Your task to perform on an android device: clear history in the chrome app Image 0: 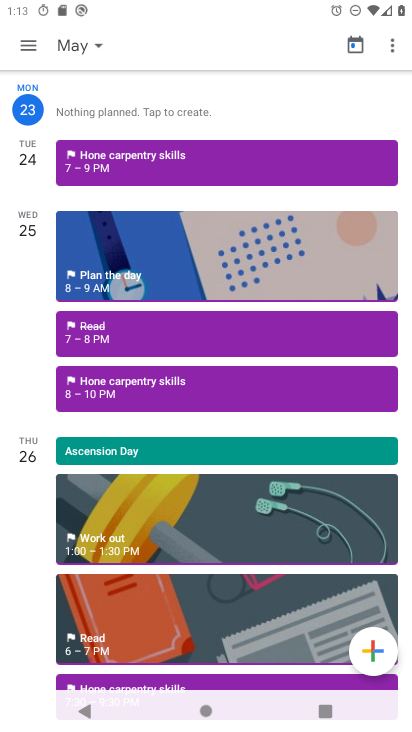
Step 0: press home button
Your task to perform on an android device: clear history in the chrome app Image 1: 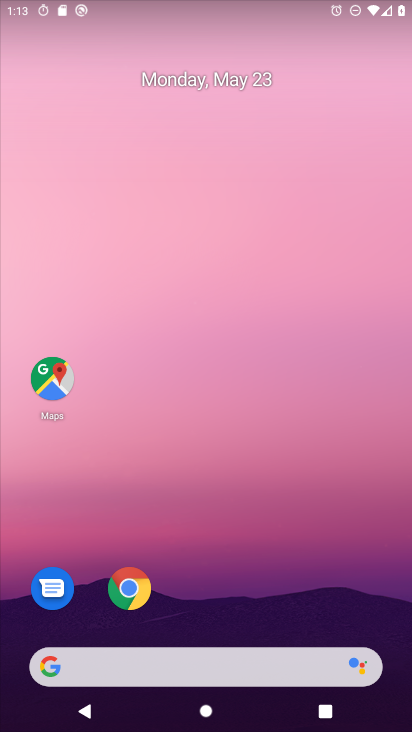
Step 1: drag from (282, 702) to (229, 151)
Your task to perform on an android device: clear history in the chrome app Image 2: 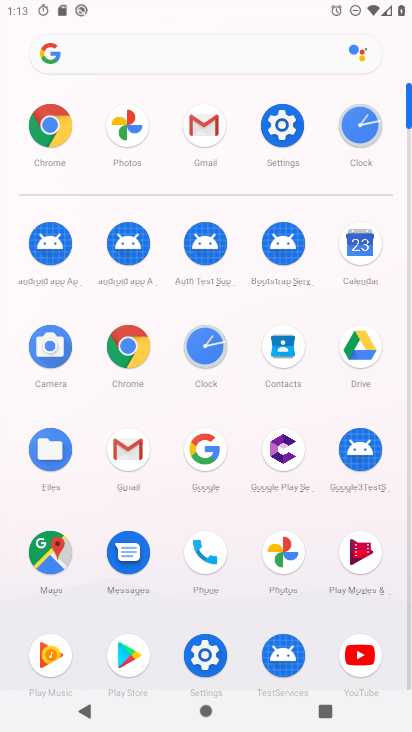
Step 2: click (66, 148)
Your task to perform on an android device: clear history in the chrome app Image 3: 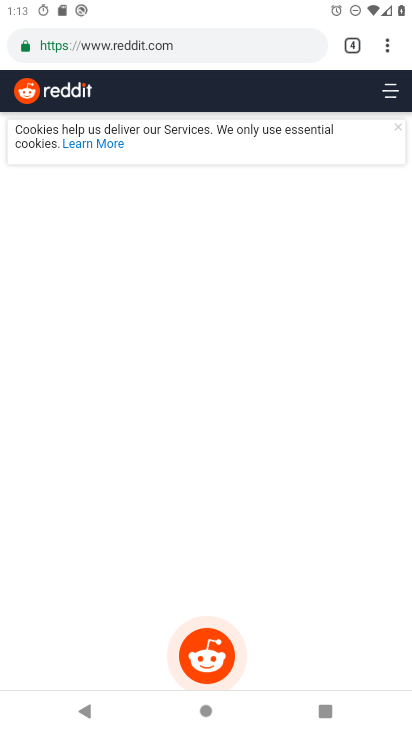
Step 3: click (386, 55)
Your task to perform on an android device: clear history in the chrome app Image 4: 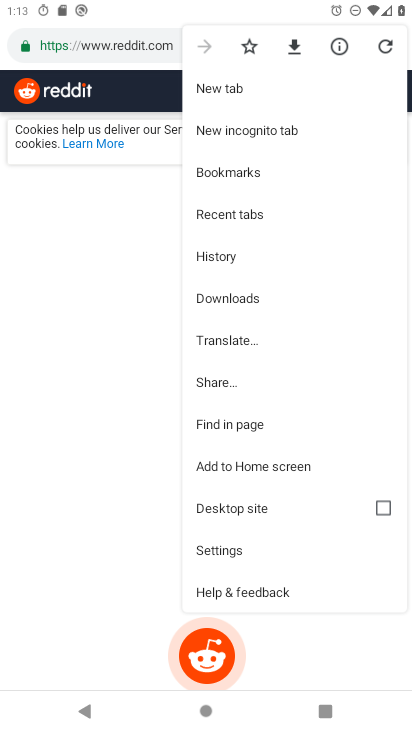
Step 4: click (252, 251)
Your task to perform on an android device: clear history in the chrome app Image 5: 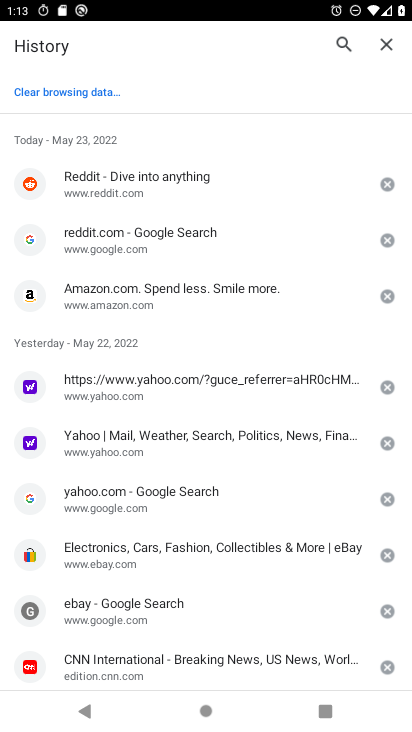
Step 5: click (64, 82)
Your task to perform on an android device: clear history in the chrome app Image 6: 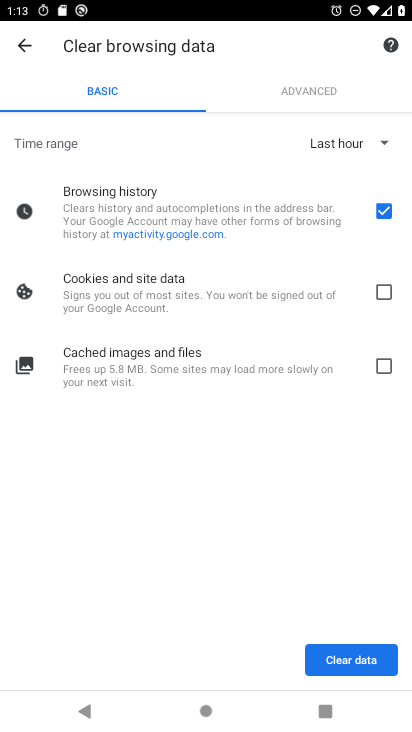
Step 6: click (354, 662)
Your task to perform on an android device: clear history in the chrome app Image 7: 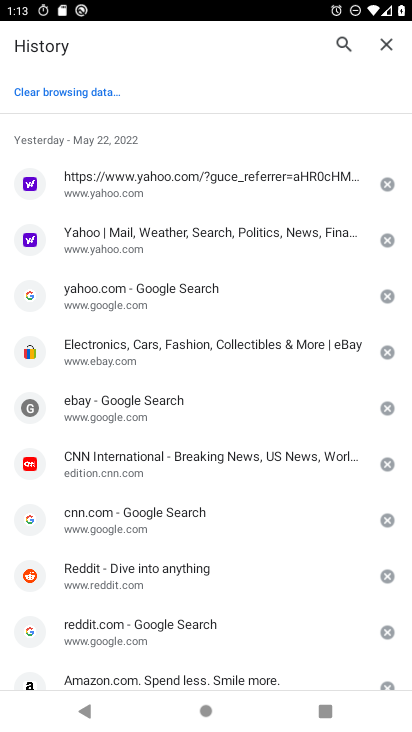
Step 7: task complete